Your task to perform on an android device: move an email to a new category in the gmail app Image 0: 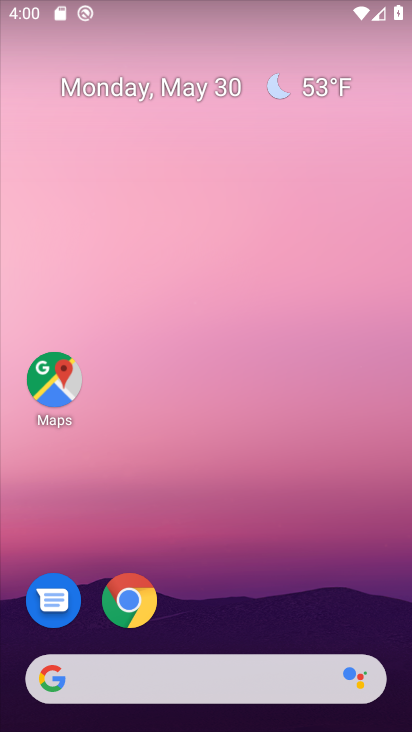
Step 0: drag from (319, 503) to (302, 19)
Your task to perform on an android device: move an email to a new category in the gmail app Image 1: 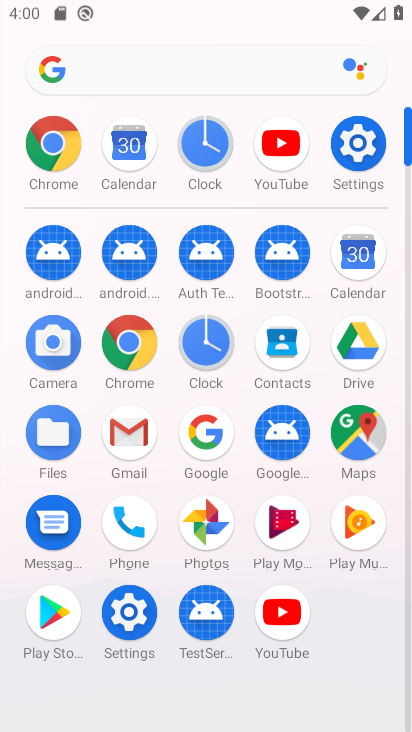
Step 1: click (131, 453)
Your task to perform on an android device: move an email to a new category in the gmail app Image 2: 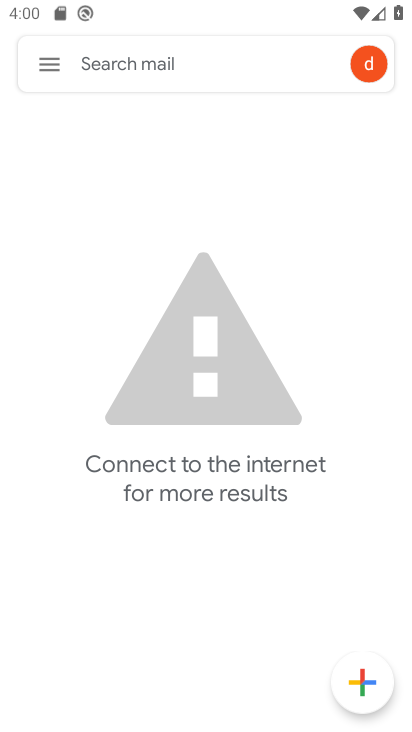
Step 2: task complete